Your task to perform on an android device: Go to calendar. Show me events next week Image 0: 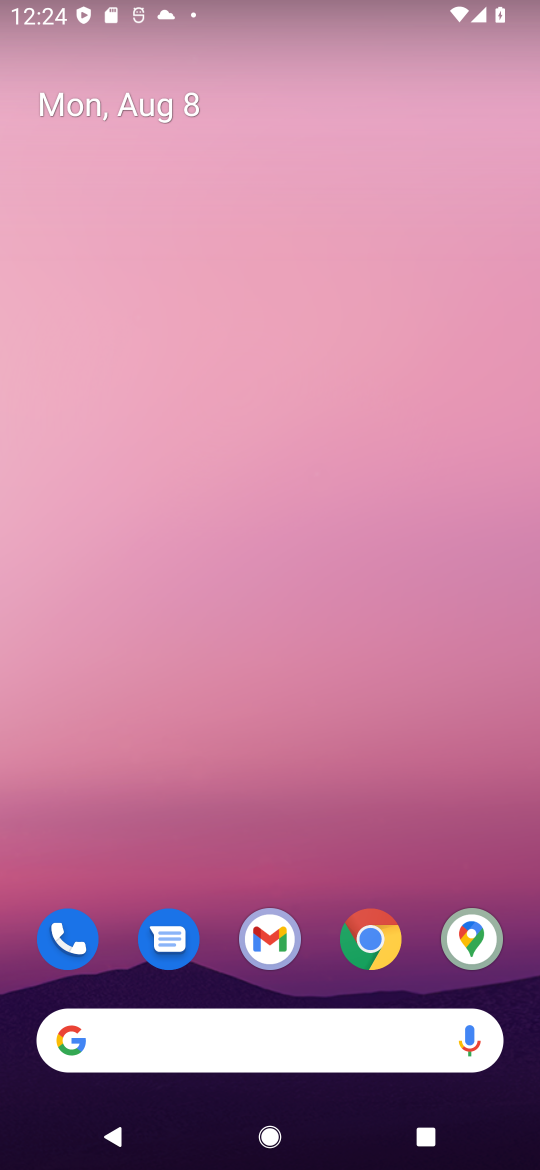
Step 0: drag from (308, 1024) to (526, 633)
Your task to perform on an android device: Go to calendar. Show me events next week Image 1: 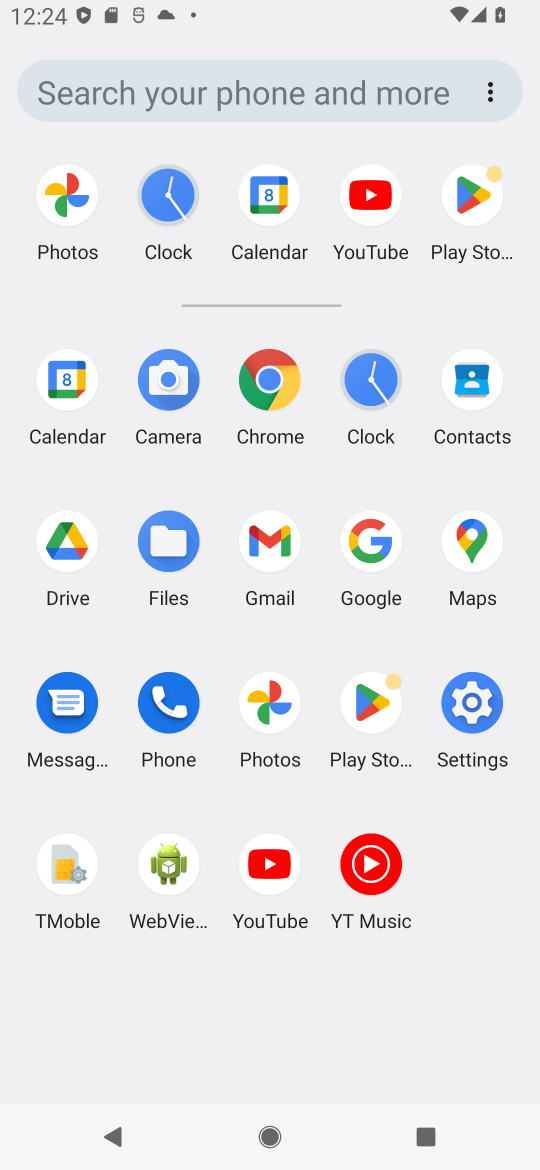
Step 1: click (72, 385)
Your task to perform on an android device: Go to calendar. Show me events next week Image 2: 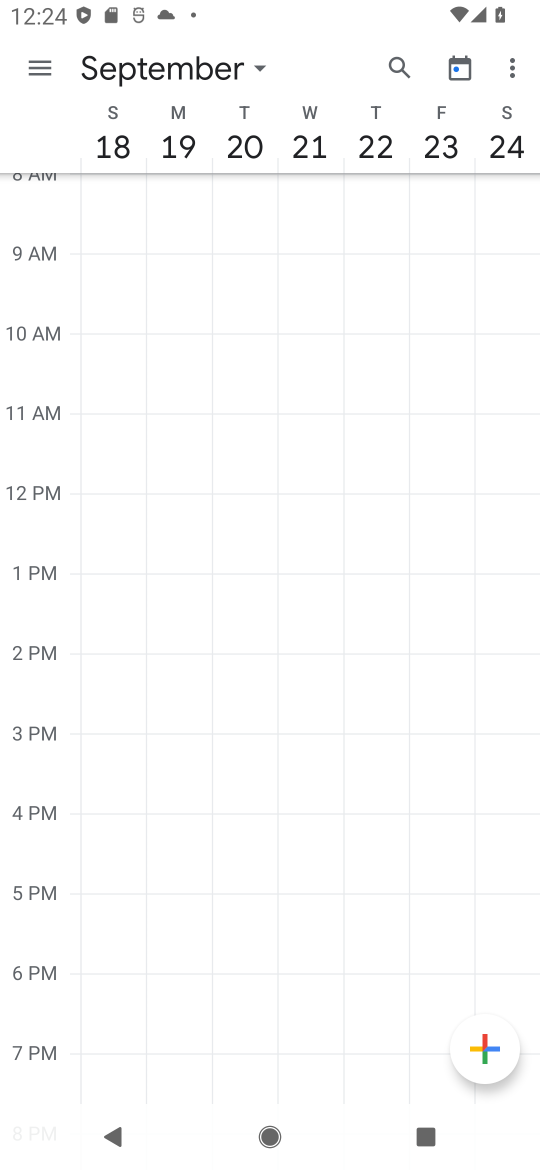
Step 2: click (465, 67)
Your task to perform on an android device: Go to calendar. Show me events next week Image 3: 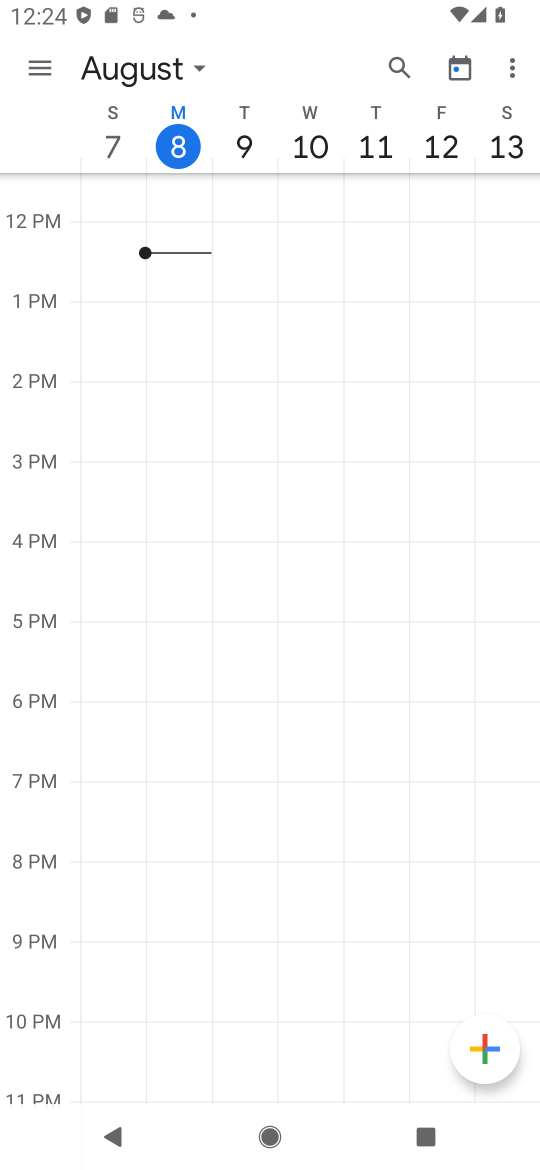
Step 3: click (197, 74)
Your task to perform on an android device: Go to calendar. Show me events next week Image 4: 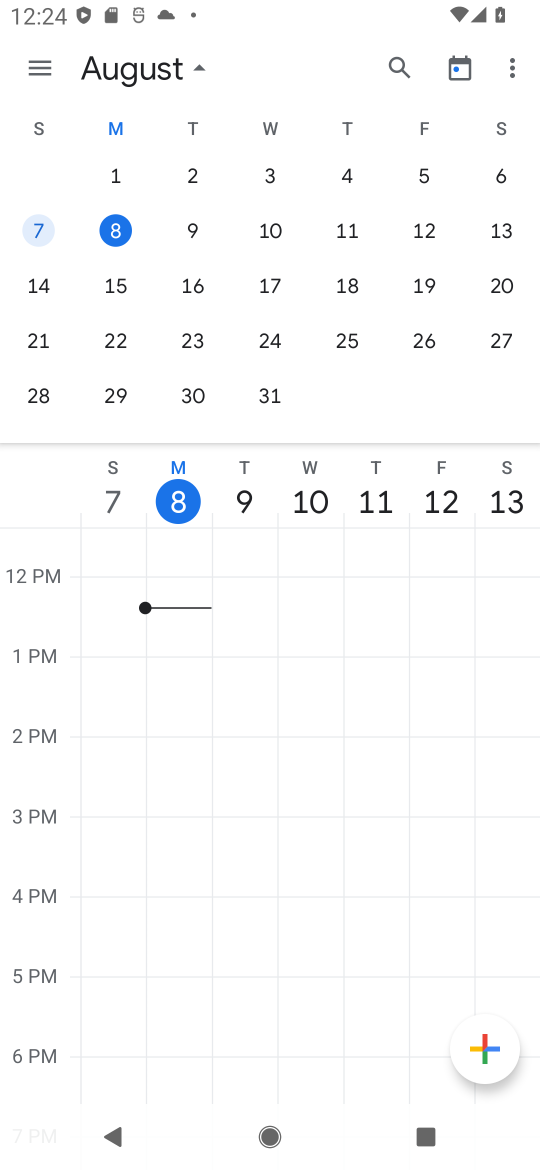
Step 4: click (121, 291)
Your task to perform on an android device: Go to calendar. Show me events next week Image 5: 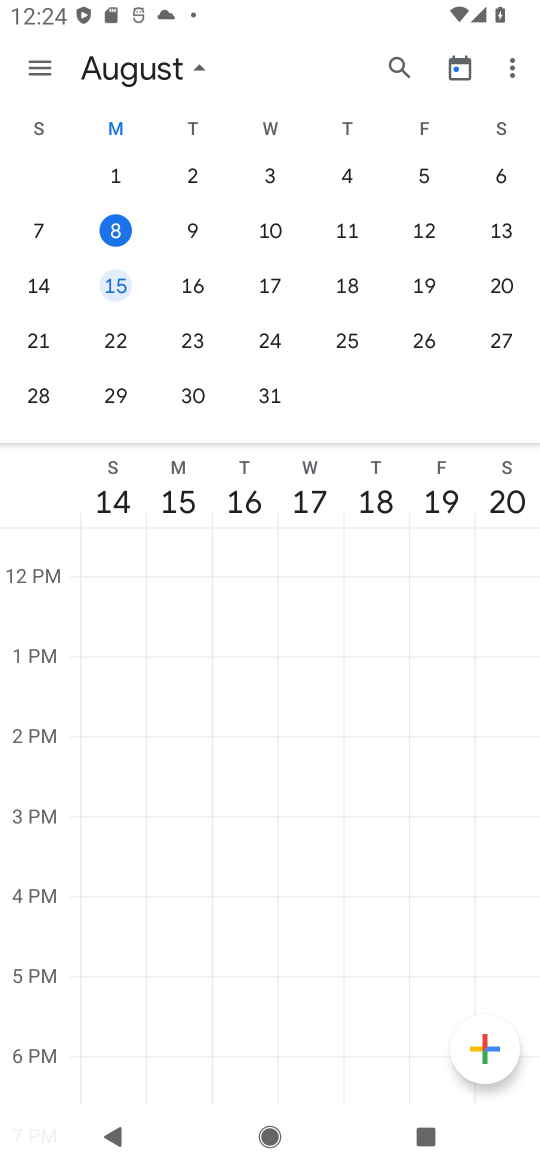
Step 5: click (30, 79)
Your task to perform on an android device: Go to calendar. Show me events next week Image 6: 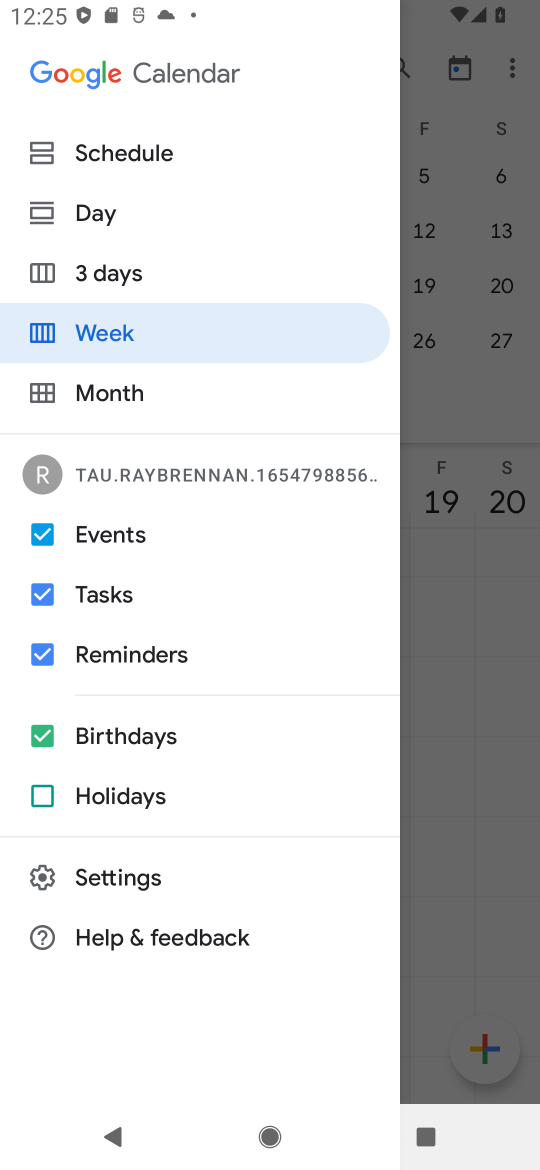
Step 6: click (89, 147)
Your task to perform on an android device: Go to calendar. Show me events next week Image 7: 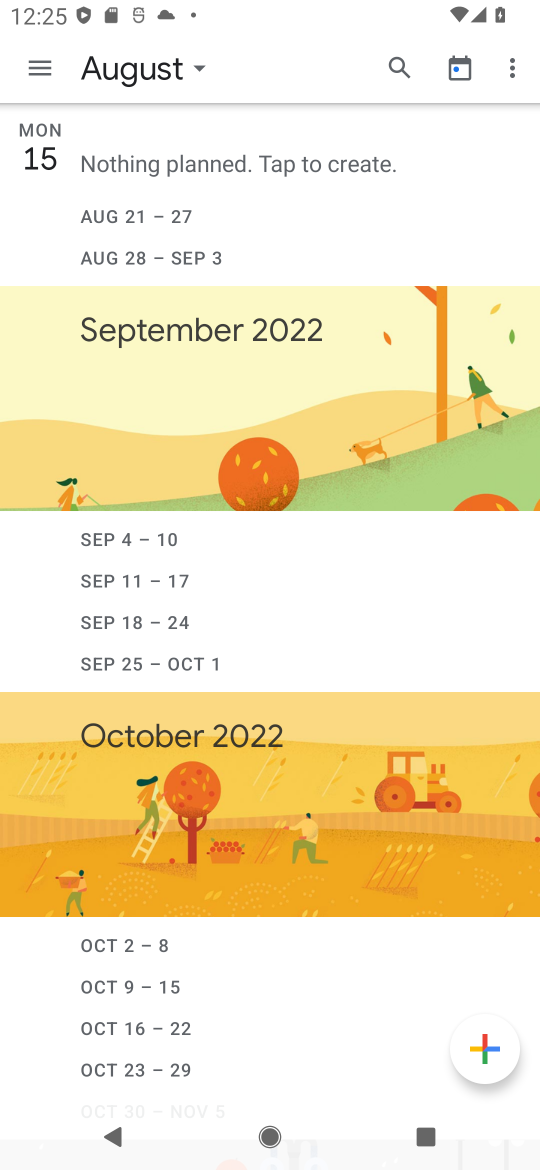
Step 7: task complete